Your task to perform on an android device: check out phone information Image 0: 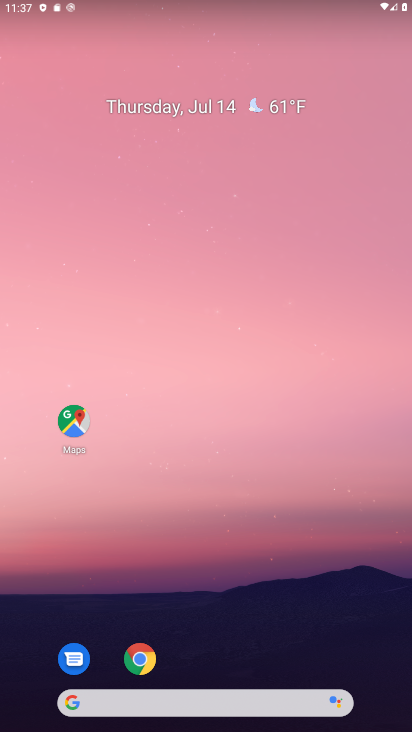
Step 0: drag from (234, 701) to (197, 273)
Your task to perform on an android device: check out phone information Image 1: 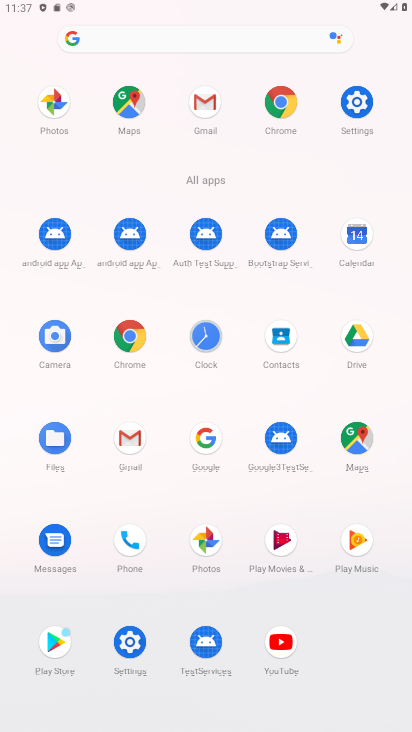
Step 1: click (359, 102)
Your task to perform on an android device: check out phone information Image 2: 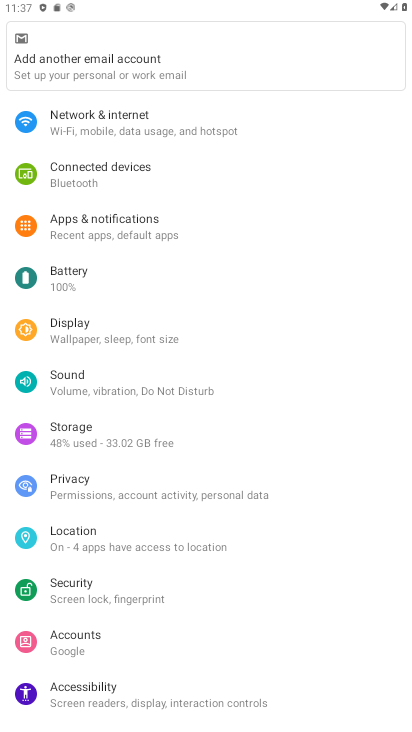
Step 2: drag from (101, 408) to (154, 328)
Your task to perform on an android device: check out phone information Image 3: 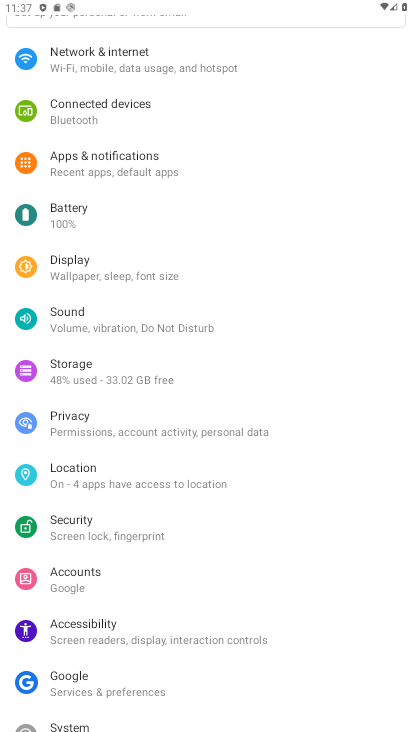
Step 3: drag from (118, 489) to (157, 422)
Your task to perform on an android device: check out phone information Image 4: 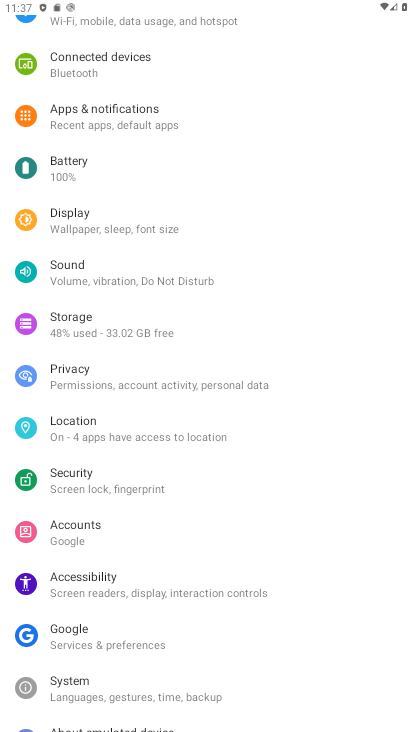
Step 4: drag from (112, 543) to (178, 436)
Your task to perform on an android device: check out phone information Image 5: 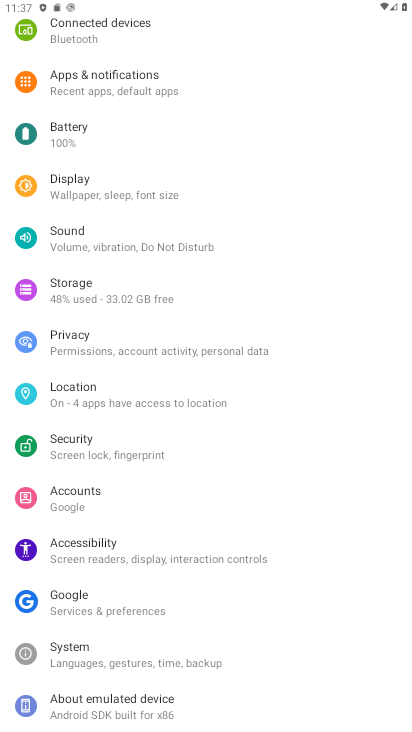
Step 5: drag from (98, 588) to (178, 429)
Your task to perform on an android device: check out phone information Image 6: 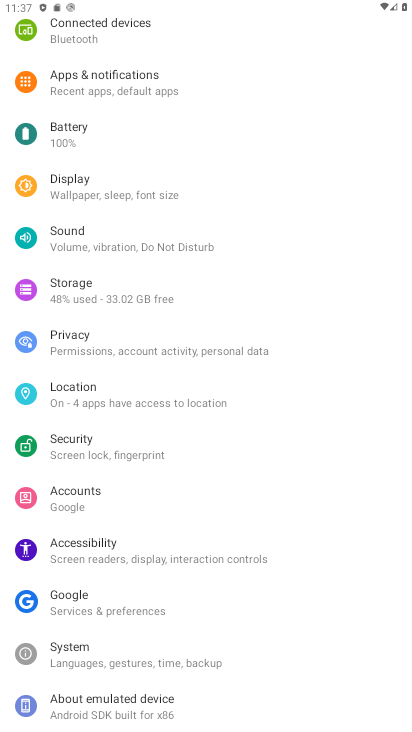
Step 6: click (118, 700)
Your task to perform on an android device: check out phone information Image 7: 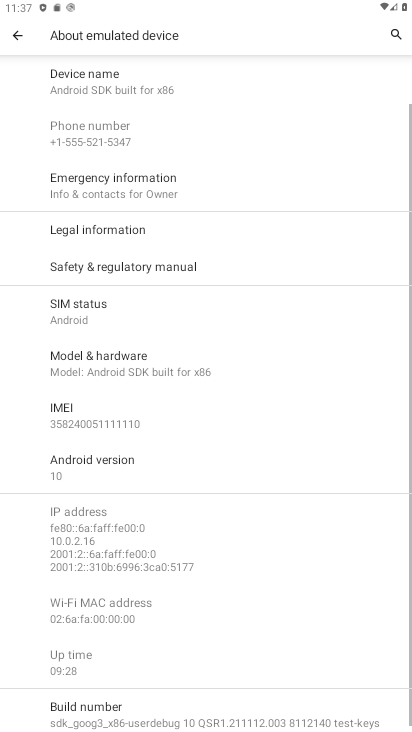
Step 7: task complete